Your task to perform on an android device: Show me the alarms in the clock app Image 0: 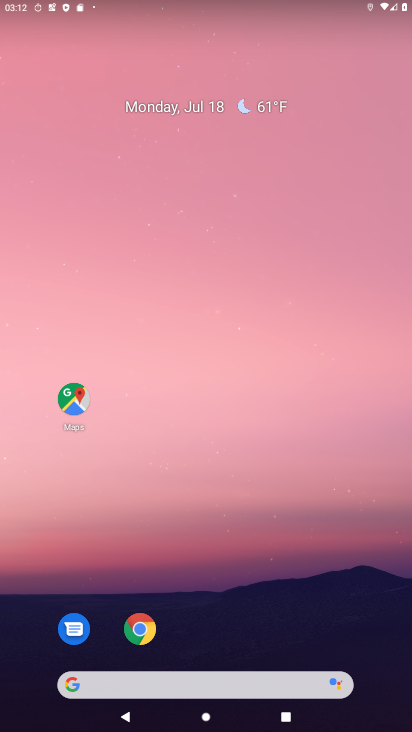
Step 0: drag from (186, 684) to (224, 0)
Your task to perform on an android device: Show me the alarms in the clock app Image 1: 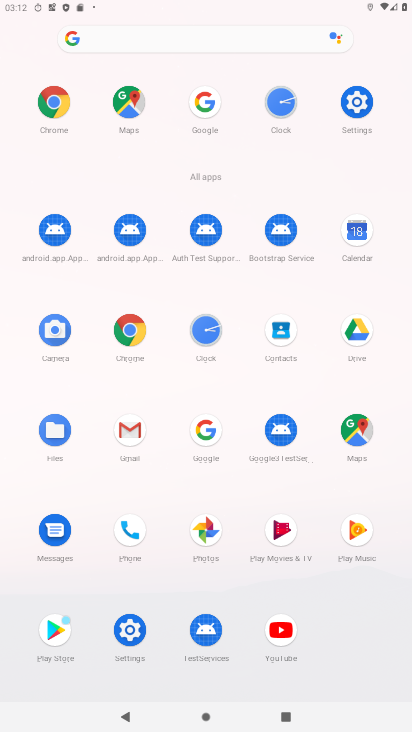
Step 1: click (280, 103)
Your task to perform on an android device: Show me the alarms in the clock app Image 2: 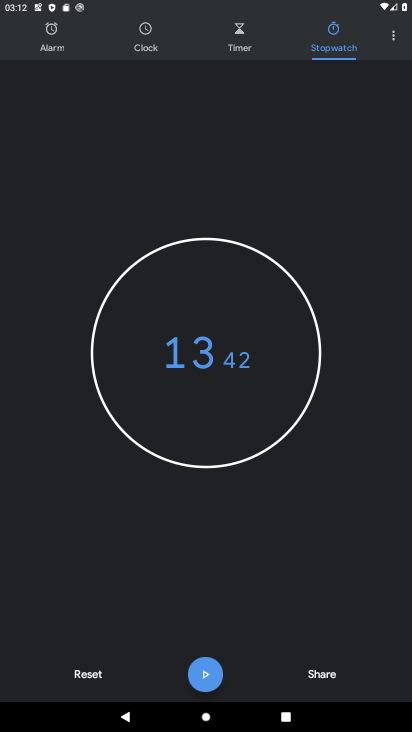
Step 2: click (53, 32)
Your task to perform on an android device: Show me the alarms in the clock app Image 3: 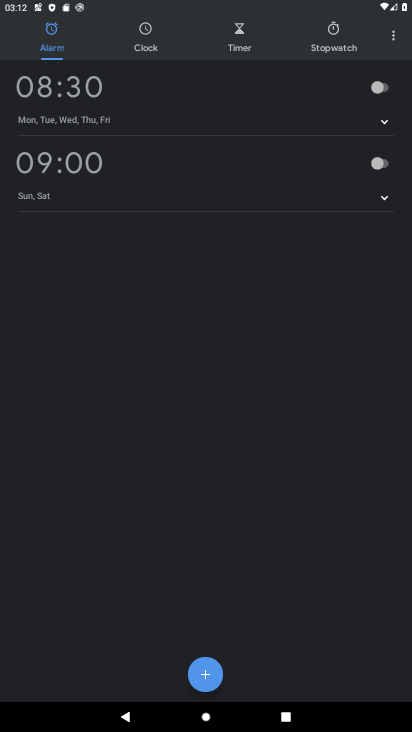
Step 3: click (206, 675)
Your task to perform on an android device: Show me the alarms in the clock app Image 4: 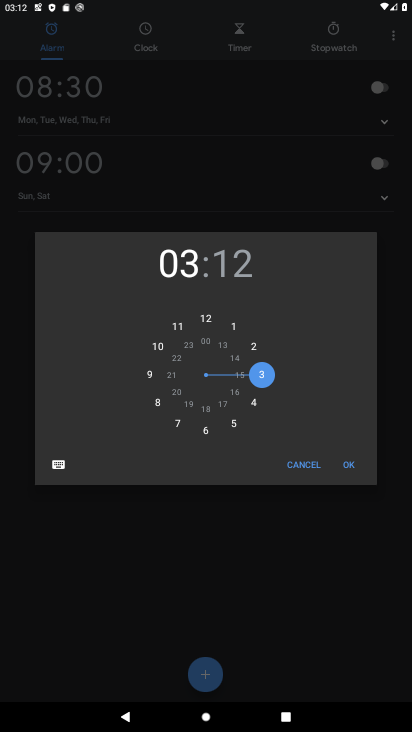
Step 4: click (173, 382)
Your task to perform on an android device: Show me the alarms in the clock app Image 5: 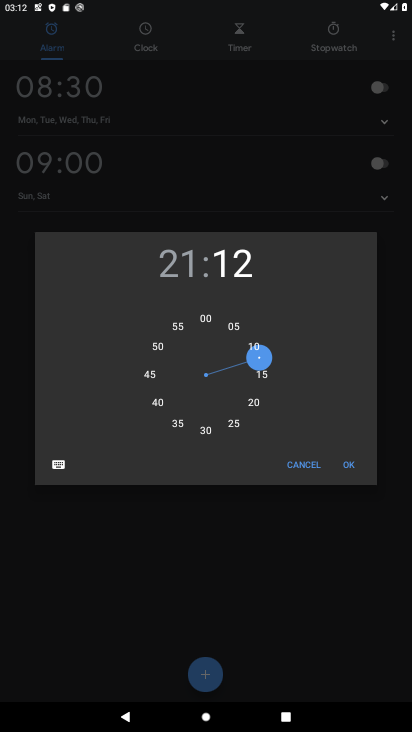
Step 5: click (149, 373)
Your task to perform on an android device: Show me the alarms in the clock app Image 6: 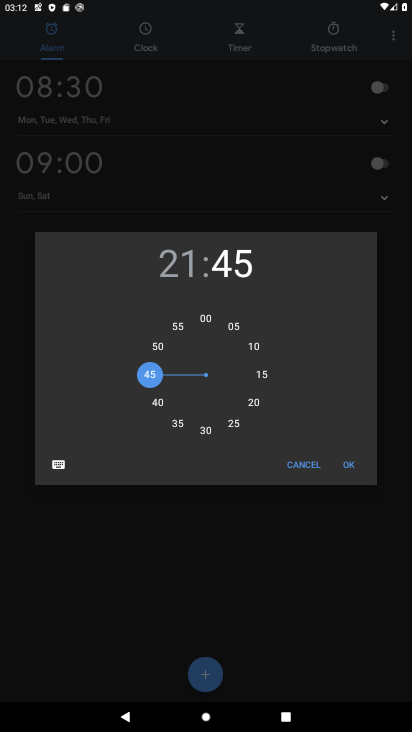
Step 6: click (349, 464)
Your task to perform on an android device: Show me the alarms in the clock app Image 7: 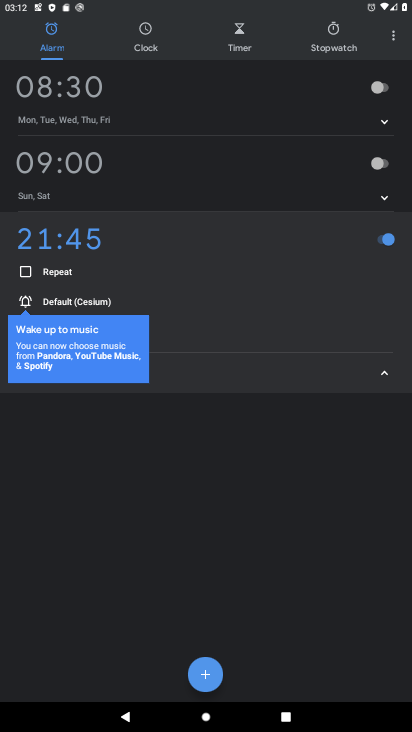
Step 7: click (386, 375)
Your task to perform on an android device: Show me the alarms in the clock app Image 8: 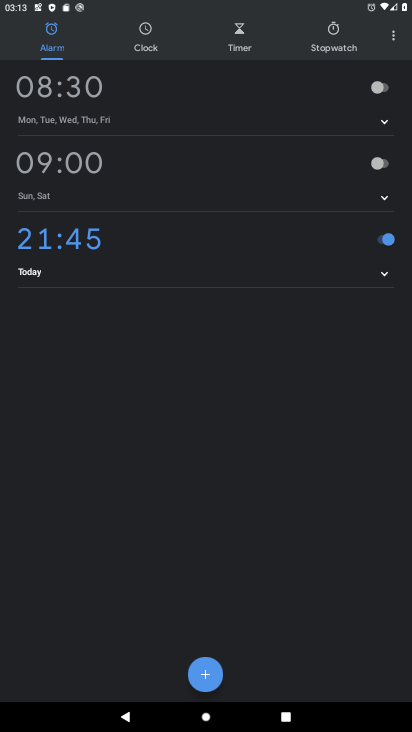
Step 8: task complete